Your task to perform on an android device: Open the calendar app, open the side menu, and click the "Day" option Image 0: 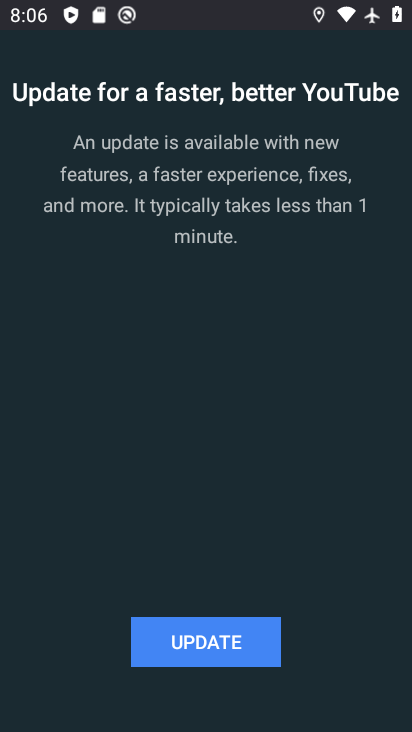
Step 0: press home button
Your task to perform on an android device: Open the calendar app, open the side menu, and click the "Day" option Image 1: 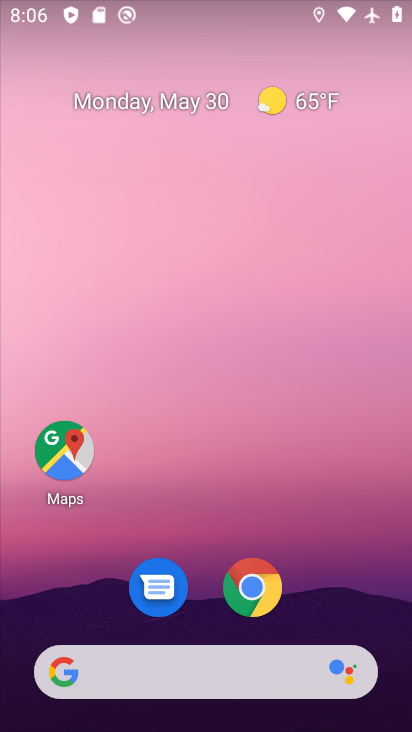
Step 1: drag from (177, 674) to (314, 165)
Your task to perform on an android device: Open the calendar app, open the side menu, and click the "Day" option Image 2: 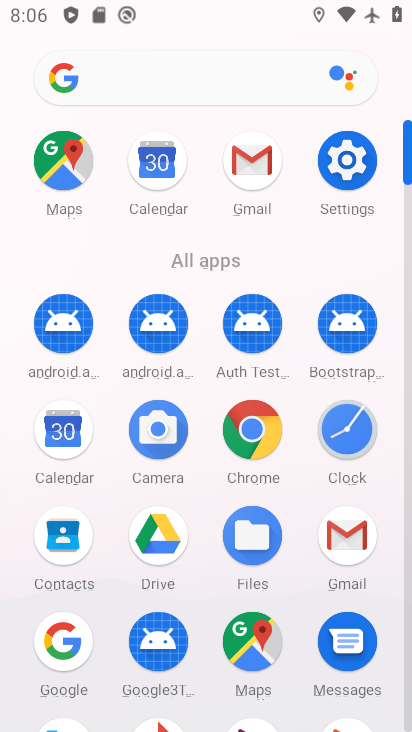
Step 2: click (149, 176)
Your task to perform on an android device: Open the calendar app, open the side menu, and click the "Day" option Image 3: 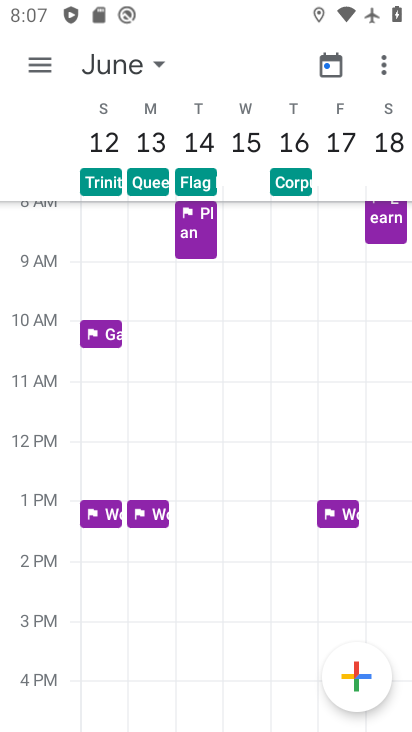
Step 3: click (39, 54)
Your task to perform on an android device: Open the calendar app, open the side menu, and click the "Day" option Image 4: 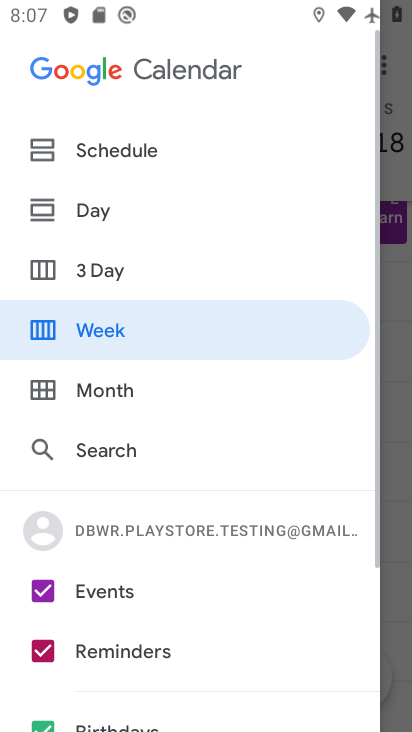
Step 4: click (82, 216)
Your task to perform on an android device: Open the calendar app, open the side menu, and click the "Day" option Image 5: 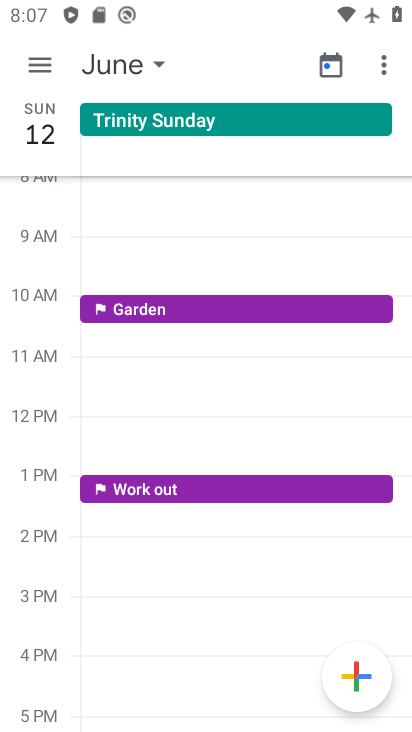
Step 5: task complete